Your task to perform on an android device: open app "Google Chat" (install if not already installed) Image 0: 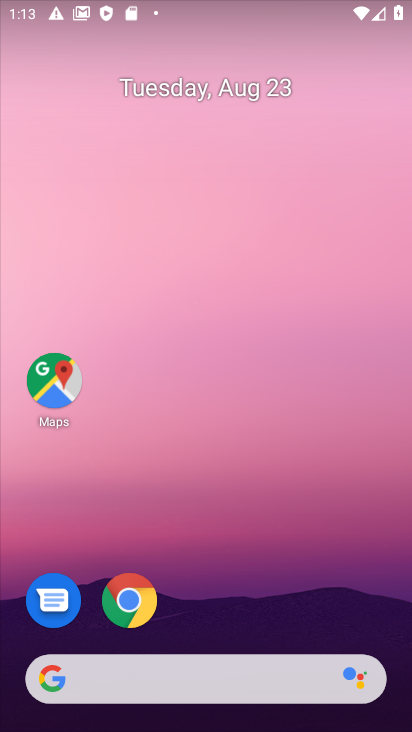
Step 0: drag from (135, 641) to (102, 241)
Your task to perform on an android device: open app "Google Chat" (install if not already installed) Image 1: 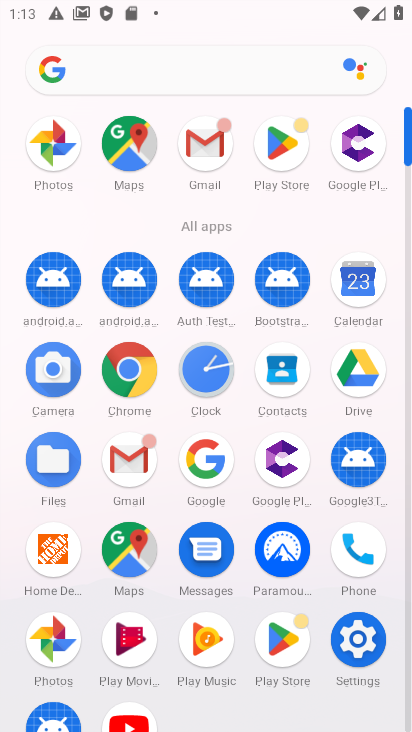
Step 1: click (270, 156)
Your task to perform on an android device: open app "Google Chat" (install if not already installed) Image 2: 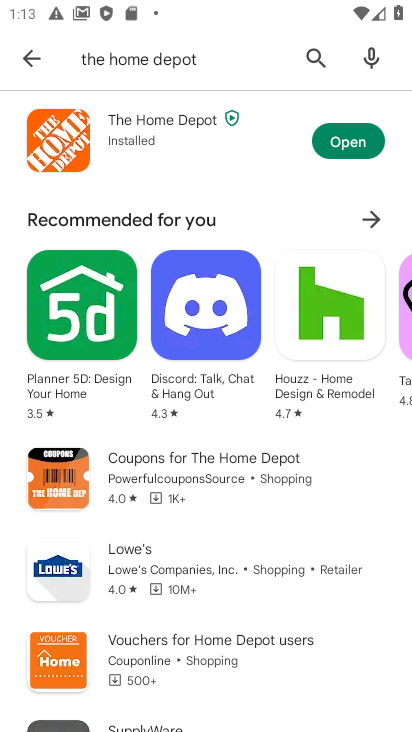
Step 2: click (311, 56)
Your task to perform on an android device: open app "Google Chat" (install if not already installed) Image 3: 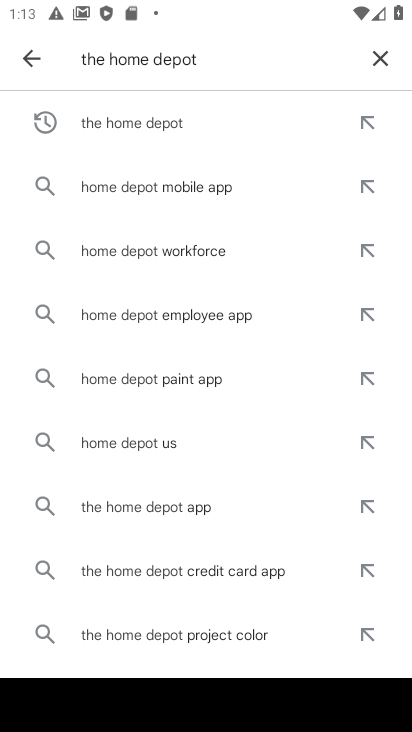
Step 3: click (379, 57)
Your task to perform on an android device: open app "Google Chat" (install if not already installed) Image 4: 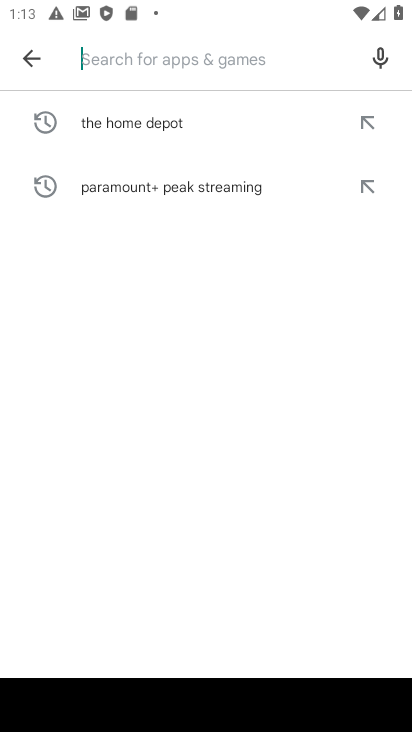
Step 4: type "Google Chat"
Your task to perform on an android device: open app "Google Chat" (install if not already installed) Image 5: 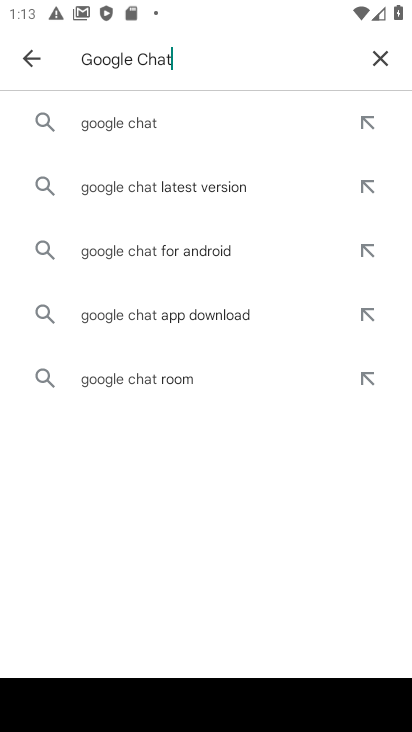
Step 5: click (149, 117)
Your task to perform on an android device: open app "Google Chat" (install if not already installed) Image 6: 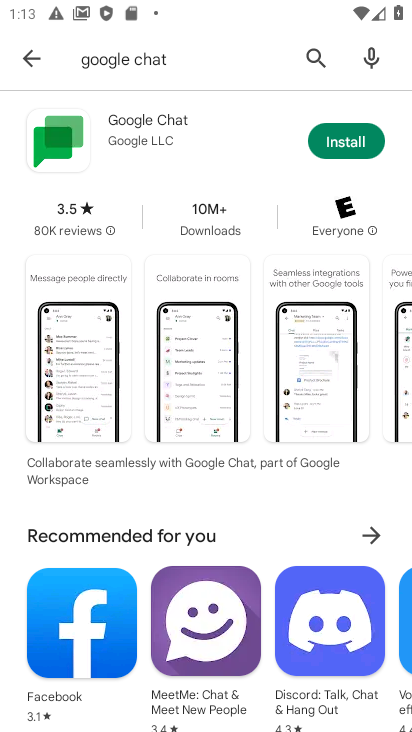
Step 6: click (342, 144)
Your task to perform on an android device: open app "Google Chat" (install if not already installed) Image 7: 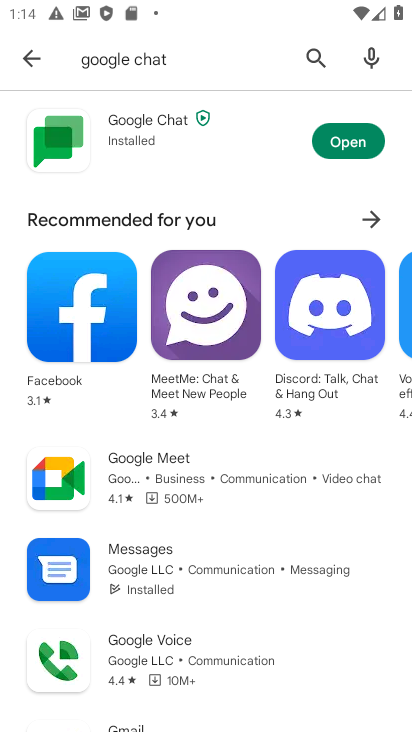
Step 7: task complete